Your task to perform on an android device: turn off notifications settings in the gmail app Image 0: 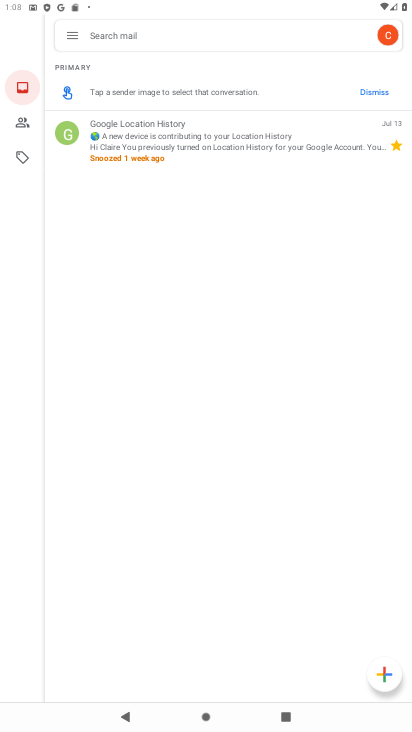
Step 0: press home button
Your task to perform on an android device: turn off notifications settings in the gmail app Image 1: 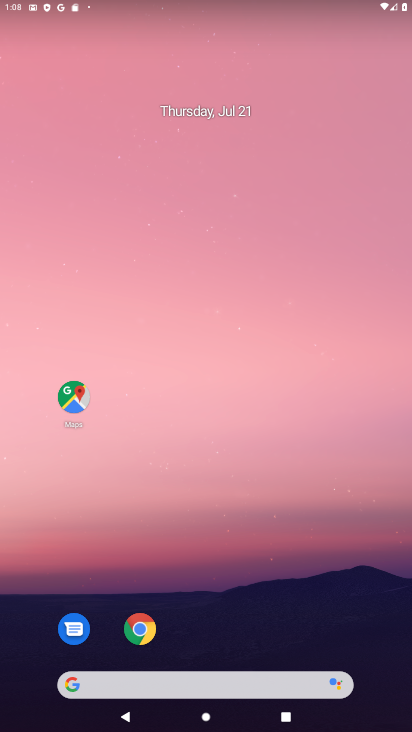
Step 1: drag from (208, 631) to (231, 78)
Your task to perform on an android device: turn off notifications settings in the gmail app Image 2: 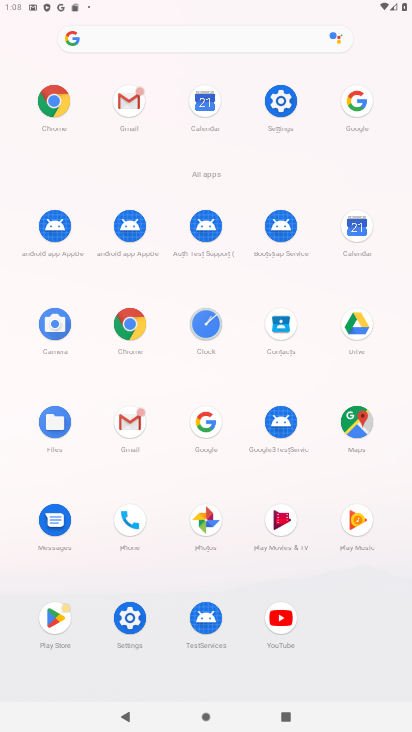
Step 2: click (133, 426)
Your task to perform on an android device: turn off notifications settings in the gmail app Image 3: 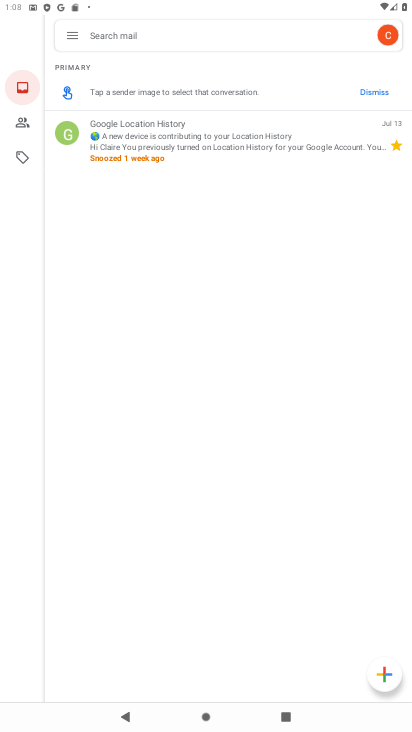
Step 3: click (72, 37)
Your task to perform on an android device: turn off notifications settings in the gmail app Image 4: 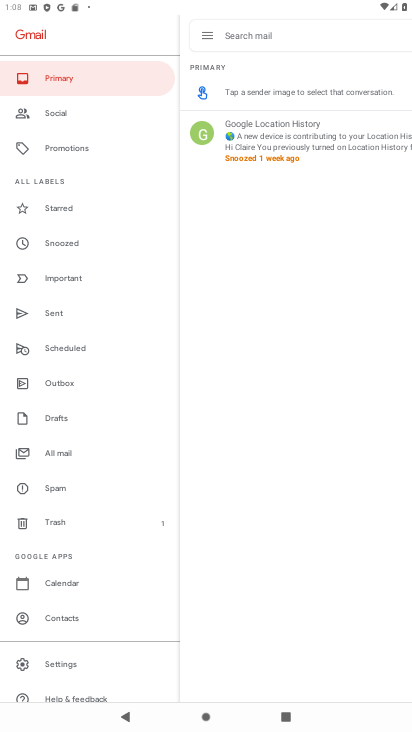
Step 4: click (71, 667)
Your task to perform on an android device: turn off notifications settings in the gmail app Image 5: 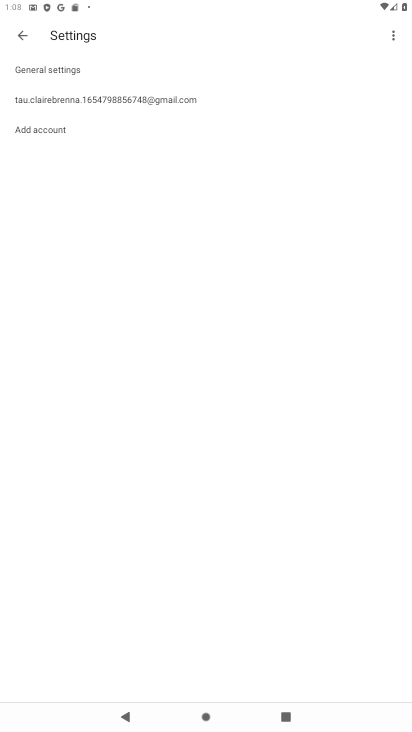
Step 5: click (84, 101)
Your task to perform on an android device: turn off notifications settings in the gmail app Image 6: 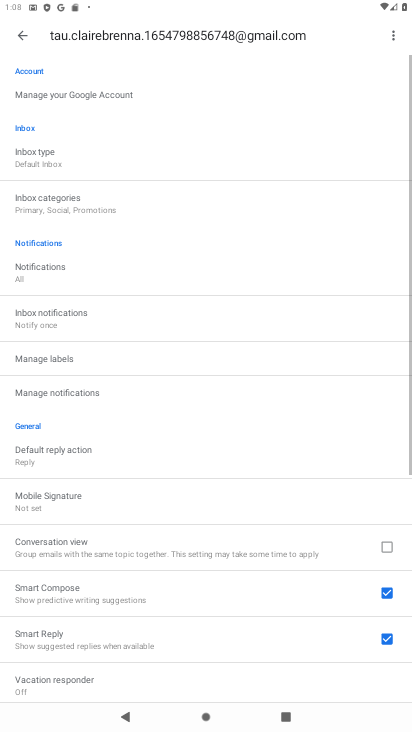
Step 6: click (66, 281)
Your task to perform on an android device: turn off notifications settings in the gmail app Image 7: 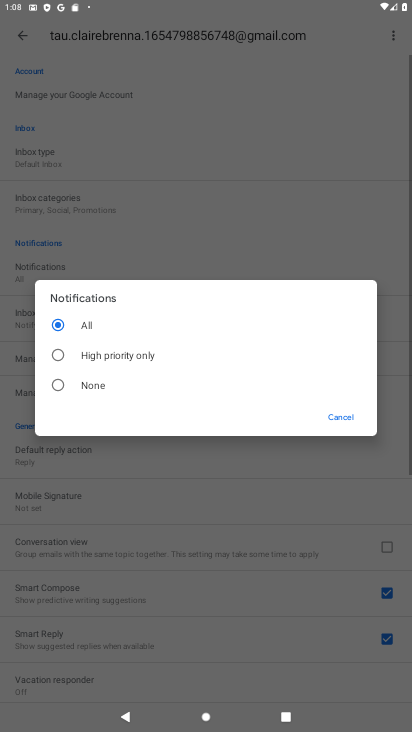
Step 7: click (56, 383)
Your task to perform on an android device: turn off notifications settings in the gmail app Image 8: 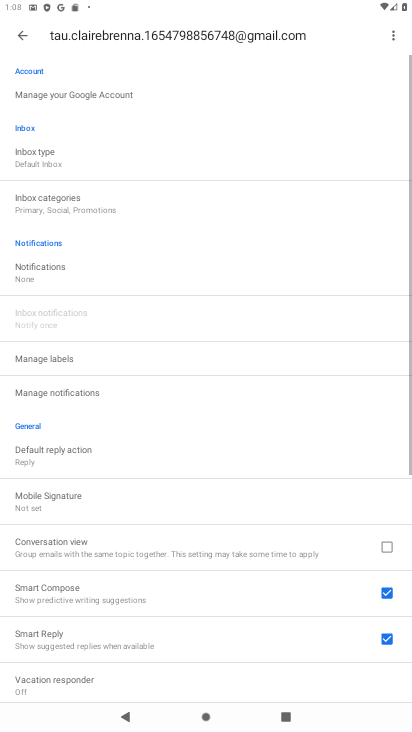
Step 8: task complete